Your task to perform on an android device: Show me popular games on the Play Store Image 0: 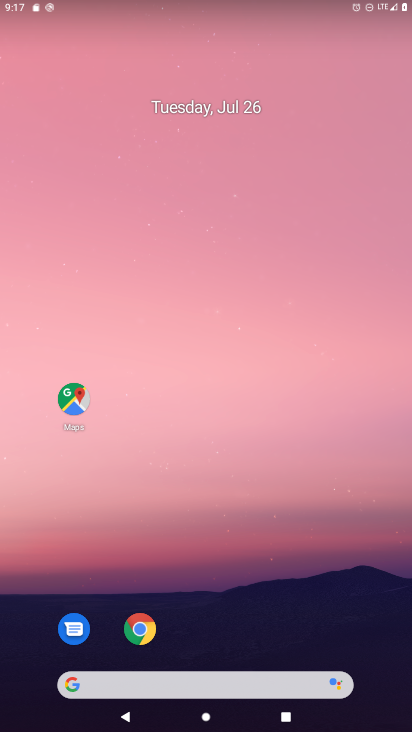
Step 0: drag from (200, 664) to (174, 29)
Your task to perform on an android device: Show me popular games on the Play Store Image 1: 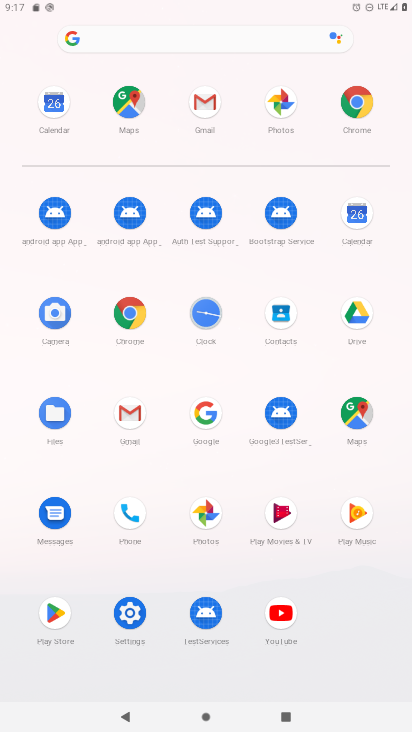
Step 1: click (49, 613)
Your task to perform on an android device: Show me popular games on the Play Store Image 2: 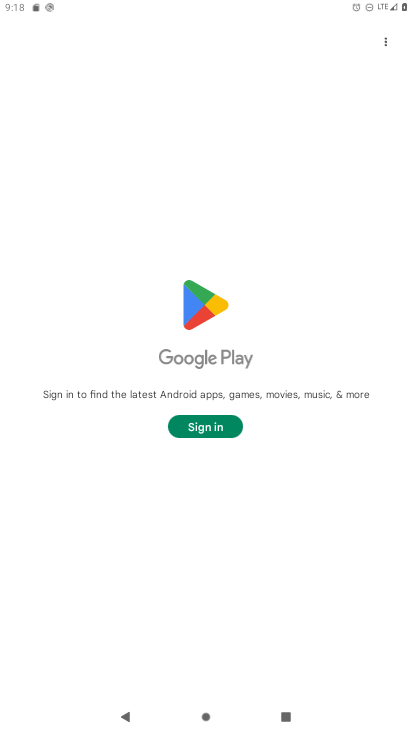
Step 2: click (174, 417)
Your task to perform on an android device: Show me popular games on the Play Store Image 3: 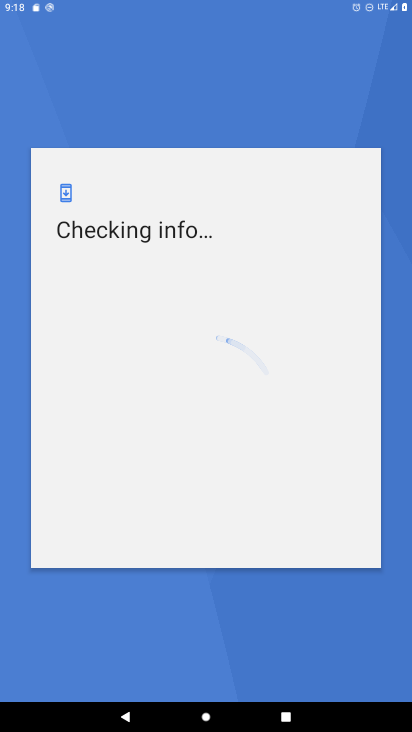
Step 3: task complete